Your task to perform on an android device: check battery use Image 0: 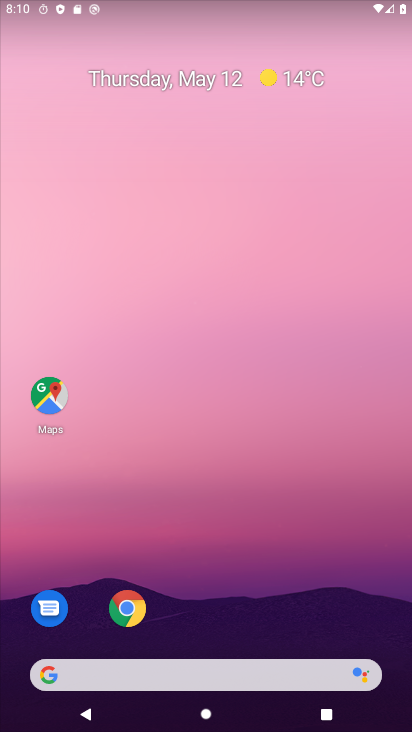
Step 0: drag from (272, 599) to (303, 80)
Your task to perform on an android device: check battery use Image 1: 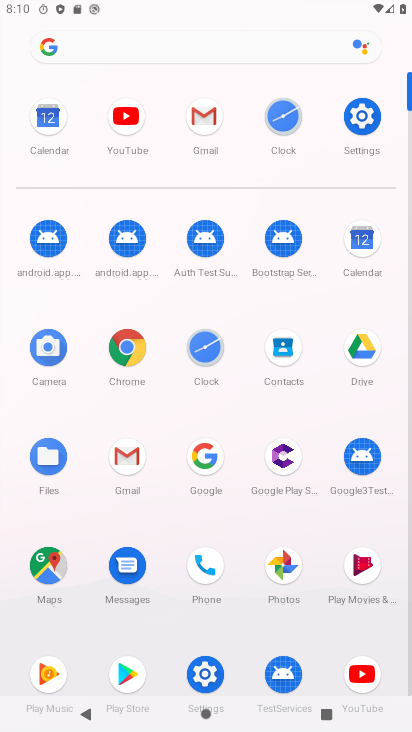
Step 1: click (368, 126)
Your task to perform on an android device: check battery use Image 2: 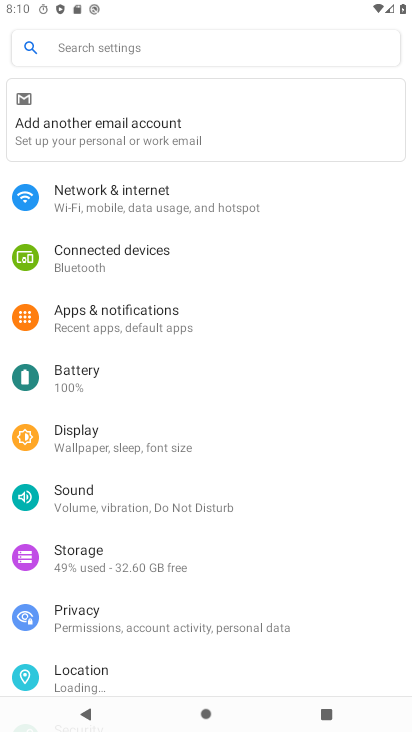
Step 2: click (57, 390)
Your task to perform on an android device: check battery use Image 3: 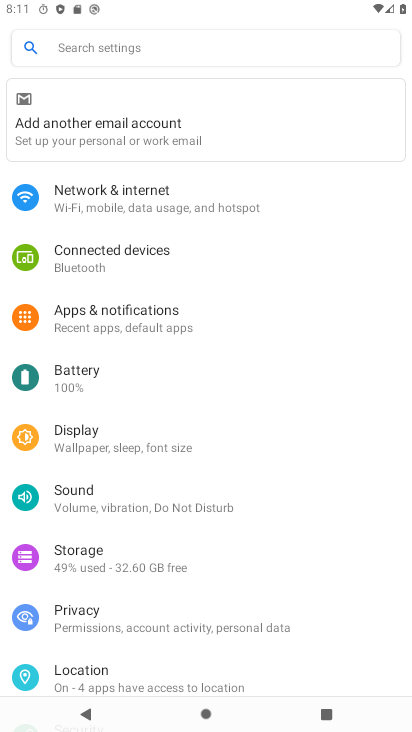
Step 3: click (116, 379)
Your task to perform on an android device: check battery use Image 4: 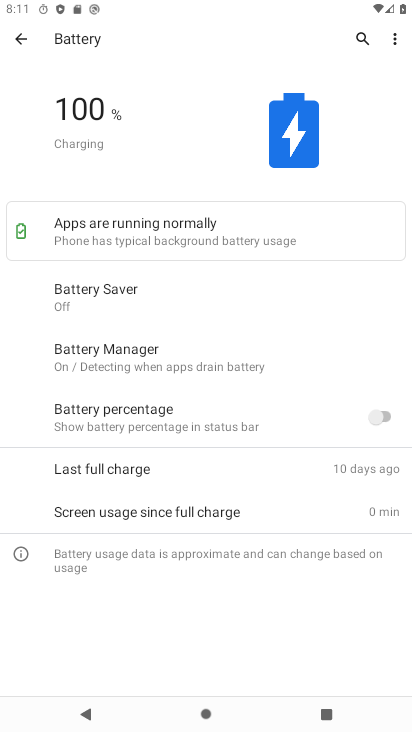
Step 4: click (399, 44)
Your task to perform on an android device: check battery use Image 5: 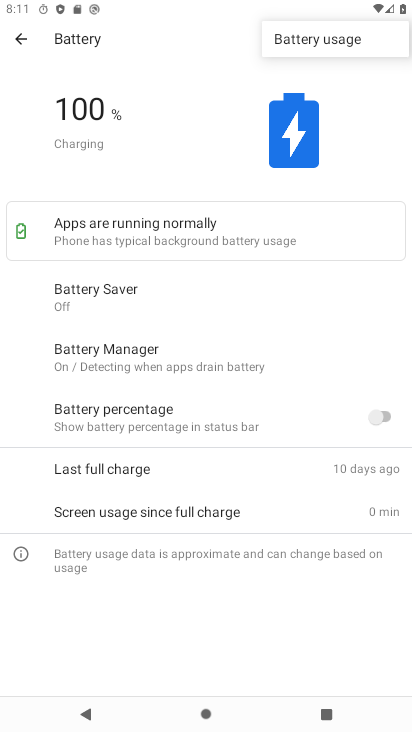
Step 5: click (377, 40)
Your task to perform on an android device: check battery use Image 6: 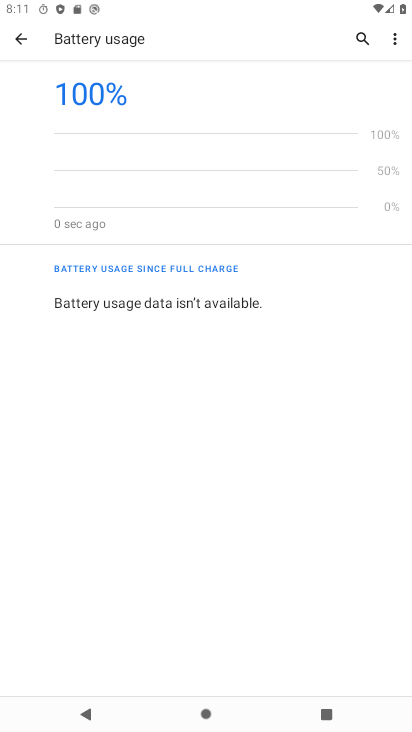
Step 6: task complete